Your task to perform on an android device: uninstall "LinkedIn" Image 0: 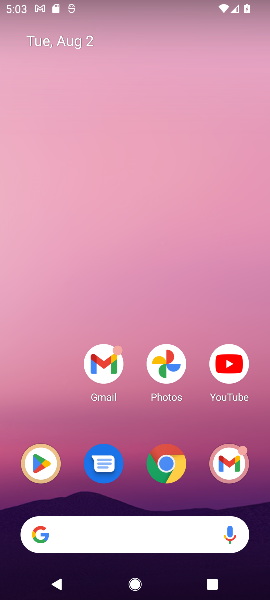
Step 0: press home button
Your task to perform on an android device: uninstall "LinkedIn" Image 1: 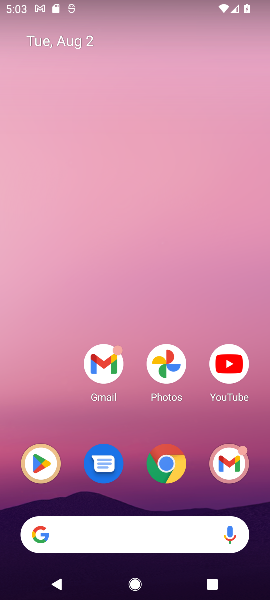
Step 1: click (42, 463)
Your task to perform on an android device: uninstall "LinkedIn" Image 2: 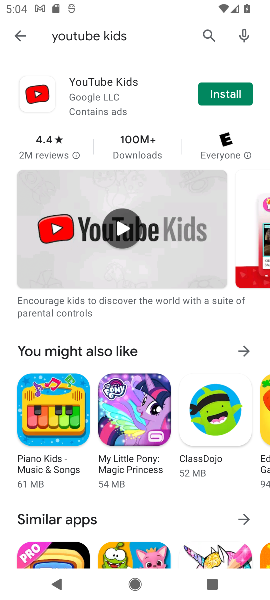
Step 2: click (209, 34)
Your task to perform on an android device: uninstall "LinkedIn" Image 3: 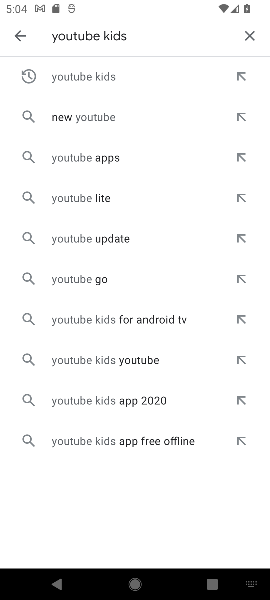
Step 3: click (251, 34)
Your task to perform on an android device: uninstall "LinkedIn" Image 4: 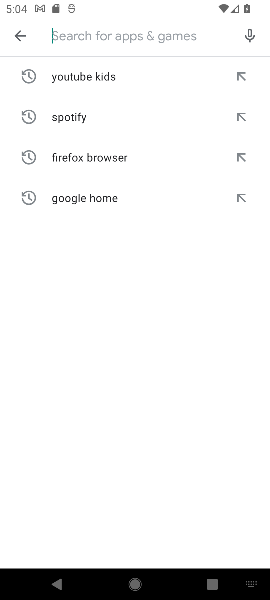
Step 4: type "LinkedIn"
Your task to perform on an android device: uninstall "LinkedIn" Image 5: 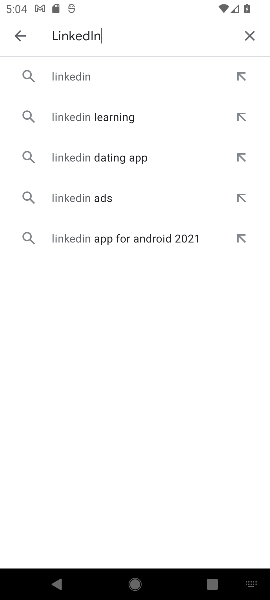
Step 5: click (67, 75)
Your task to perform on an android device: uninstall "LinkedIn" Image 6: 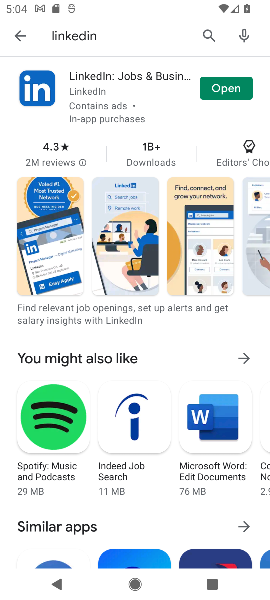
Step 6: click (92, 102)
Your task to perform on an android device: uninstall "LinkedIn" Image 7: 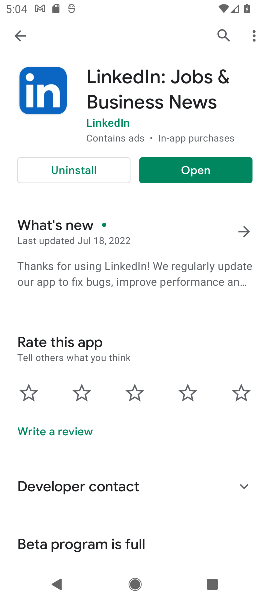
Step 7: click (89, 168)
Your task to perform on an android device: uninstall "LinkedIn" Image 8: 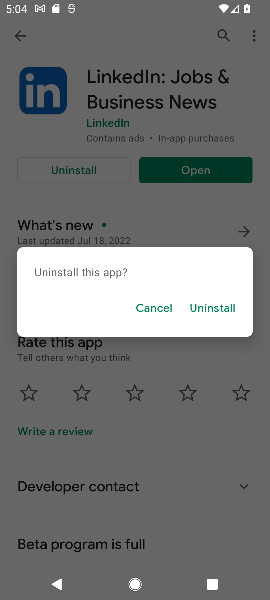
Step 8: click (208, 305)
Your task to perform on an android device: uninstall "LinkedIn" Image 9: 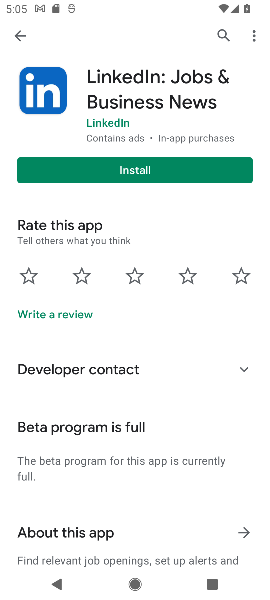
Step 9: task complete